Your task to perform on an android device: find photos in the google photos app Image 0: 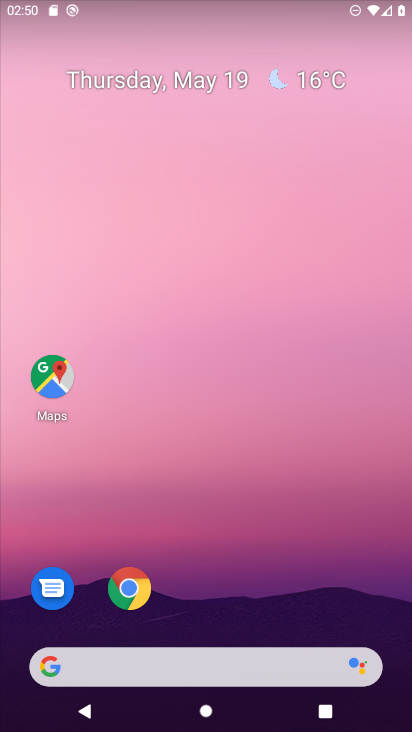
Step 0: drag from (300, 557) to (278, 19)
Your task to perform on an android device: find photos in the google photos app Image 1: 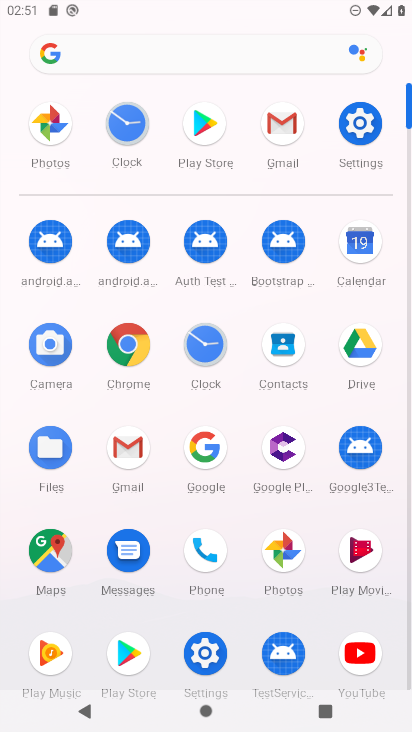
Step 1: click (285, 546)
Your task to perform on an android device: find photos in the google photos app Image 2: 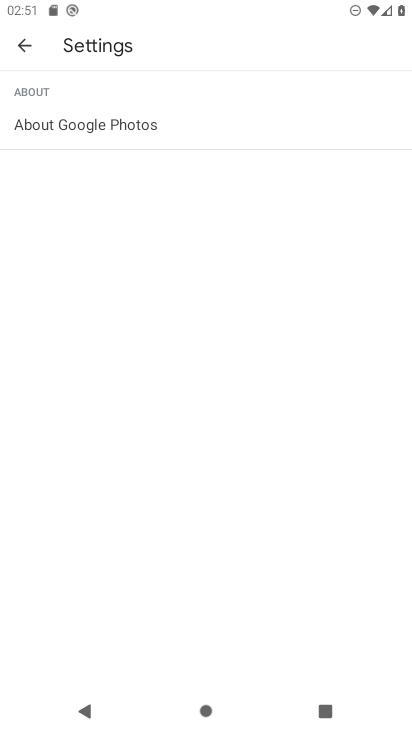
Step 2: click (21, 43)
Your task to perform on an android device: find photos in the google photos app Image 3: 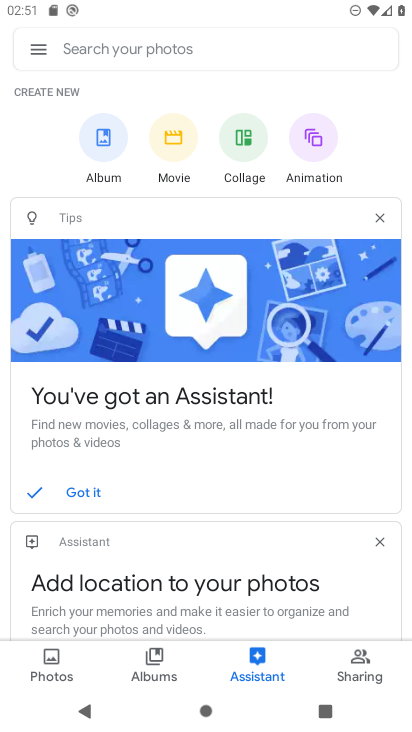
Step 3: click (50, 680)
Your task to perform on an android device: find photos in the google photos app Image 4: 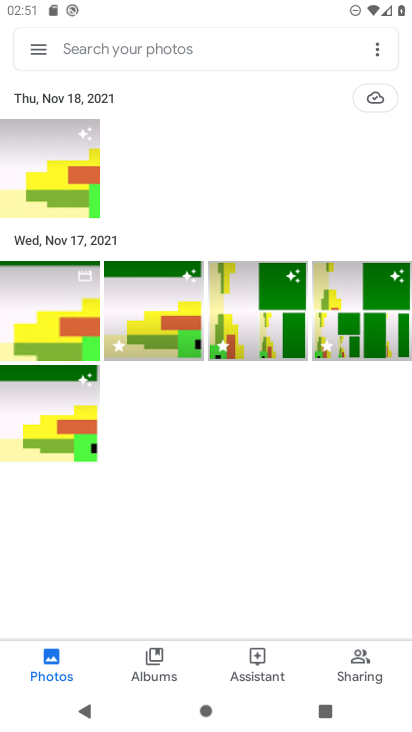
Step 4: task complete